Your task to perform on an android device: toggle data saver in the chrome app Image 0: 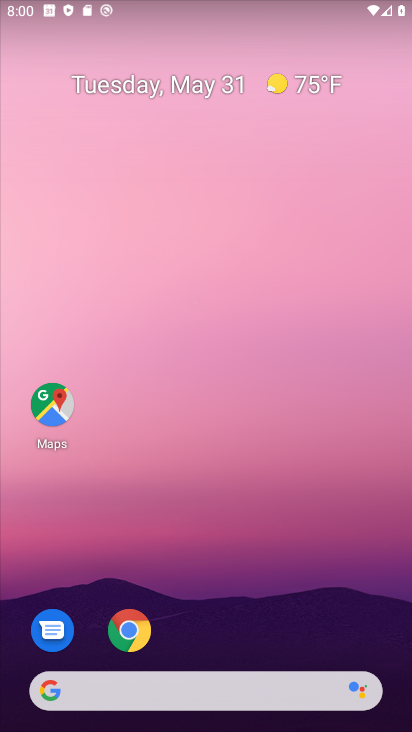
Step 0: drag from (230, 539) to (250, 95)
Your task to perform on an android device: toggle data saver in the chrome app Image 1: 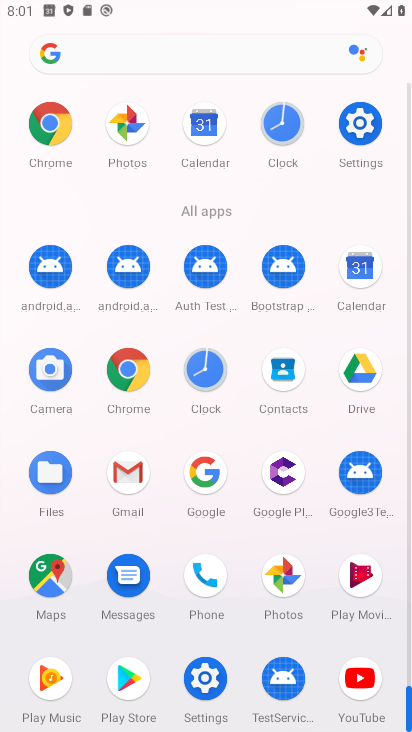
Step 1: click (141, 379)
Your task to perform on an android device: toggle data saver in the chrome app Image 2: 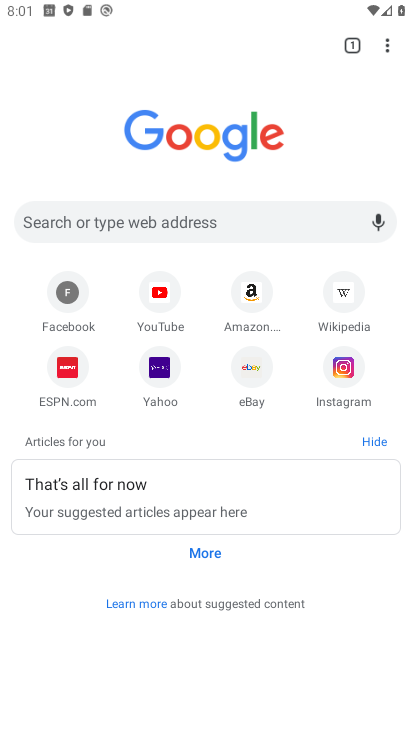
Step 2: click (390, 48)
Your task to perform on an android device: toggle data saver in the chrome app Image 3: 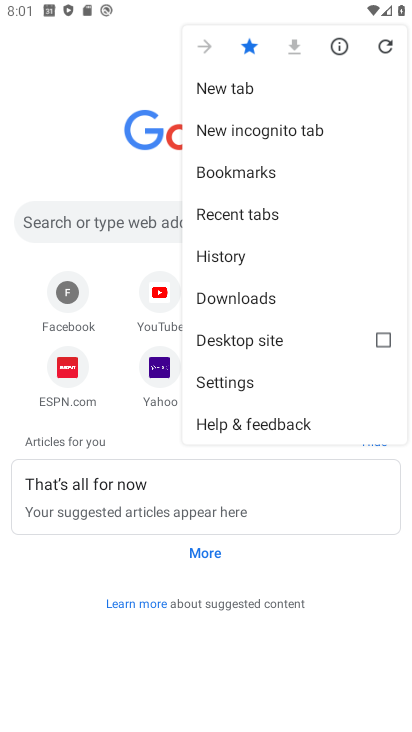
Step 3: click (235, 380)
Your task to perform on an android device: toggle data saver in the chrome app Image 4: 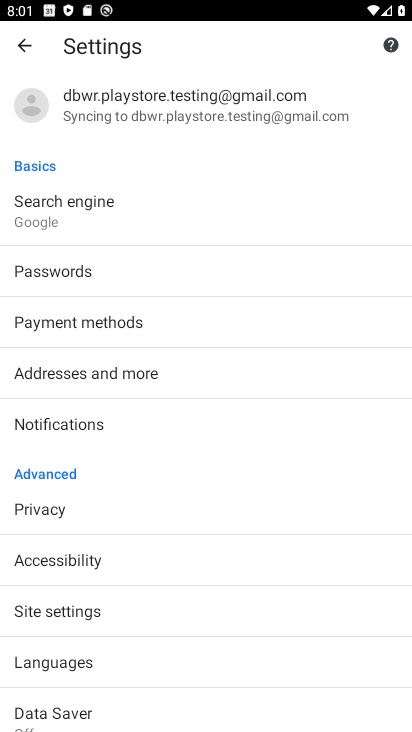
Step 4: drag from (151, 561) to (173, 351)
Your task to perform on an android device: toggle data saver in the chrome app Image 5: 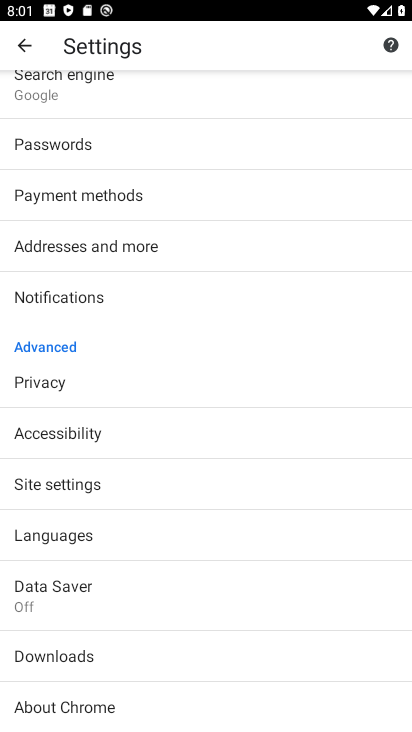
Step 5: click (68, 591)
Your task to perform on an android device: toggle data saver in the chrome app Image 6: 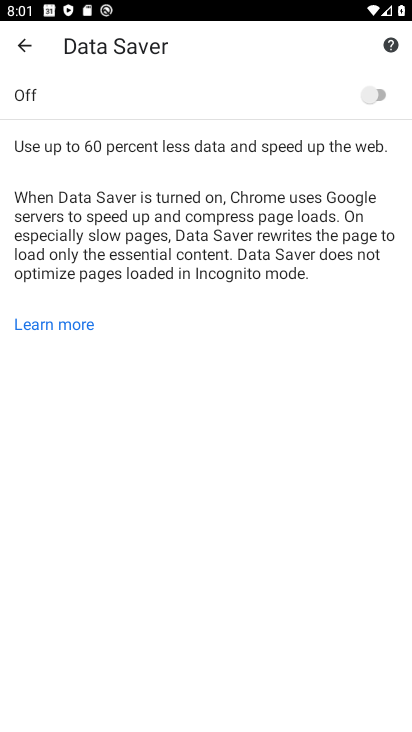
Step 6: click (380, 91)
Your task to perform on an android device: toggle data saver in the chrome app Image 7: 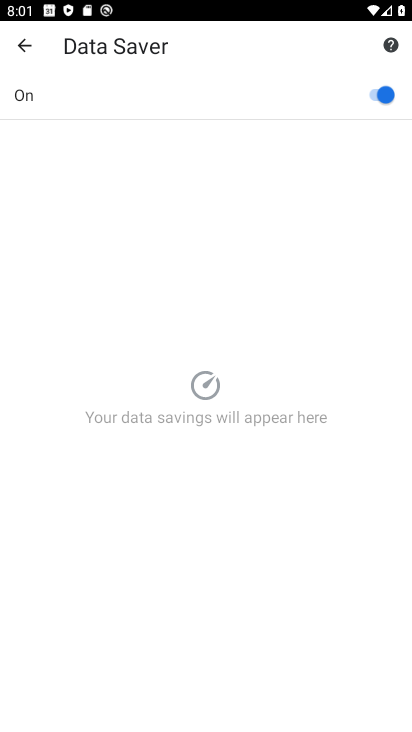
Step 7: task complete